Your task to perform on an android device: Open ESPN.com Image 0: 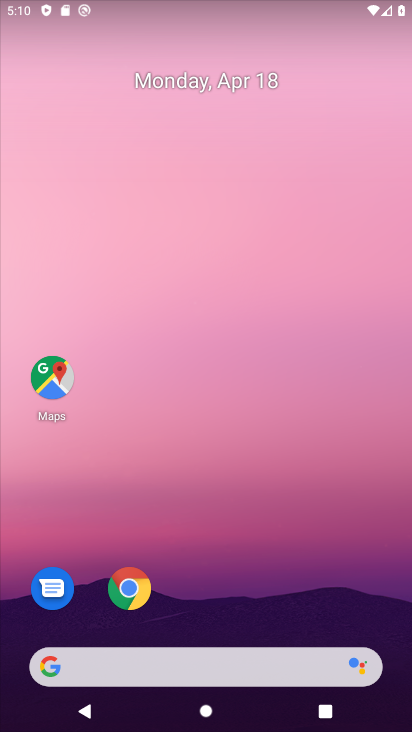
Step 0: click (117, 586)
Your task to perform on an android device: Open ESPN.com Image 1: 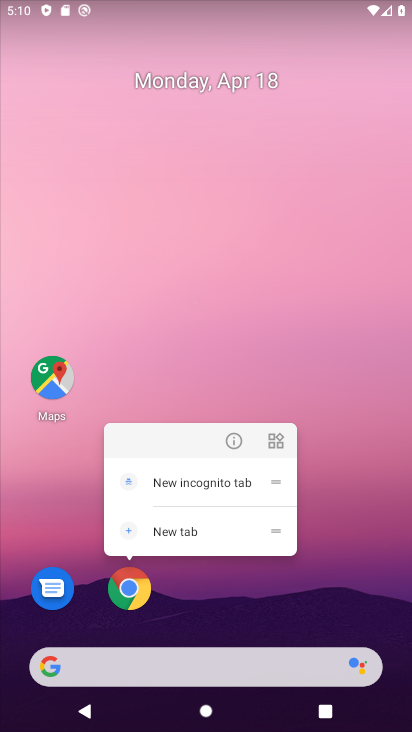
Step 1: click (118, 585)
Your task to perform on an android device: Open ESPN.com Image 2: 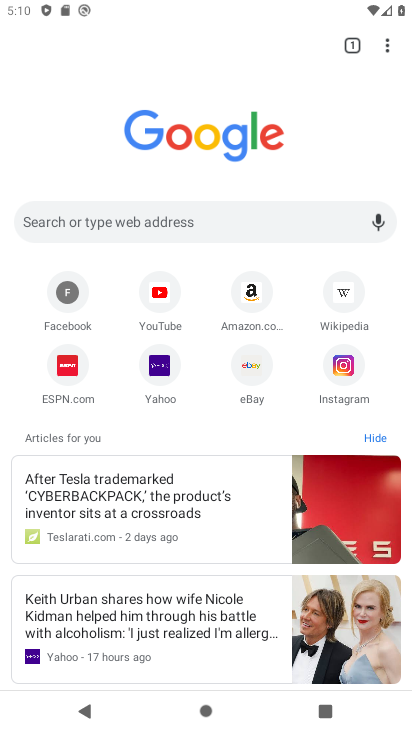
Step 2: click (162, 220)
Your task to perform on an android device: Open ESPN.com Image 3: 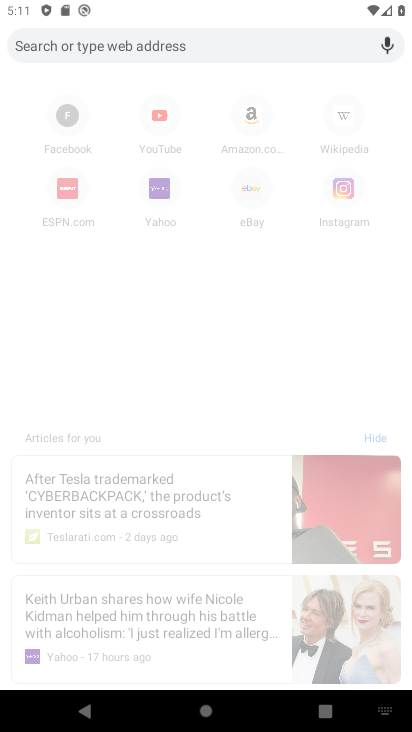
Step 3: type "ESPN.com"
Your task to perform on an android device: Open ESPN.com Image 4: 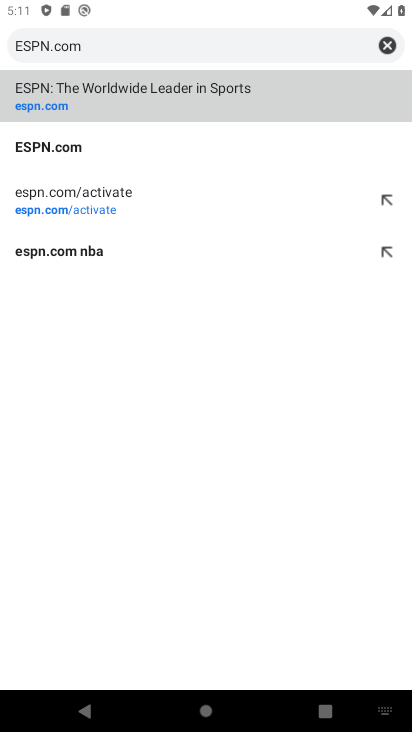
Step 4: click (75, 106)
Your task to perform on an android device: Open ESPN.com Image 5: 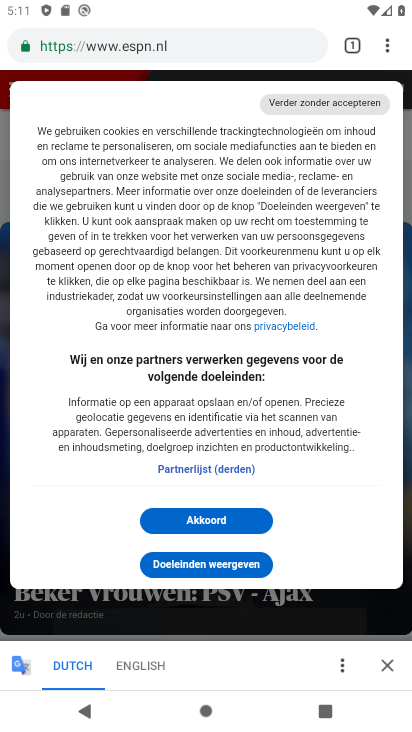
Step 5: task complete